Your task to perform on an android device: Go to privacy settings Image 0: 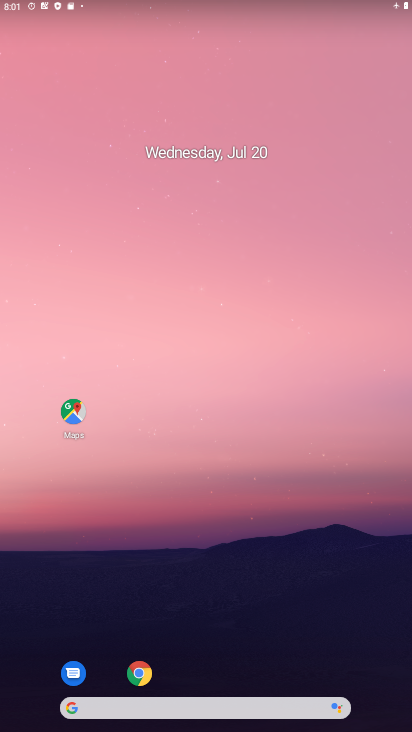
Step 0: drag from (371, 663) to (173, 22)
Your task to perform on an android device: Go to privacy settings Image 1: 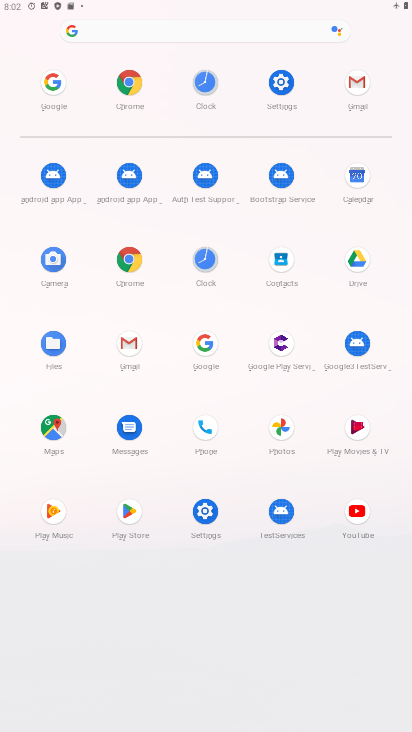
Step 1: click (196, 514)
Your task to perform on an android device: Go to privacy settings Image 2: 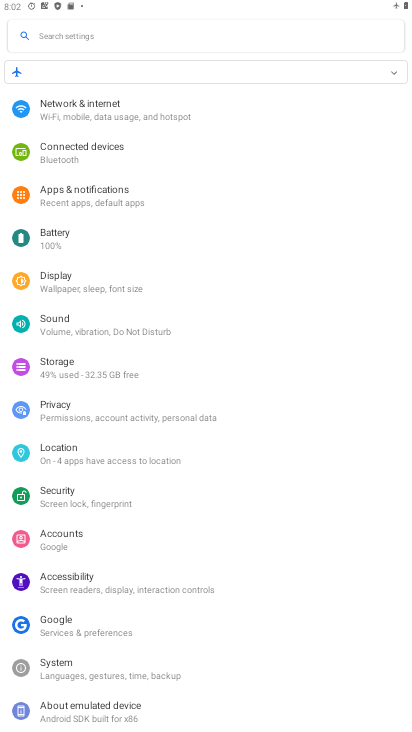
Step 2: click (68, 415)
Your task to perform on an android device: Go to privacy settings Image 3: 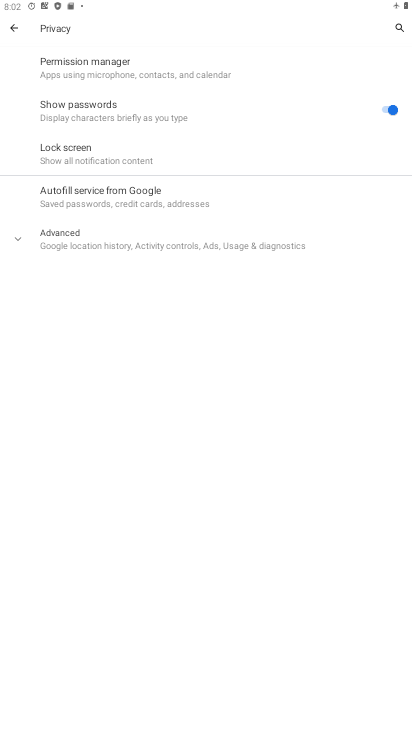
Step 3: task complete